Your task to perform on an android device: turn notification dots on Image 0: 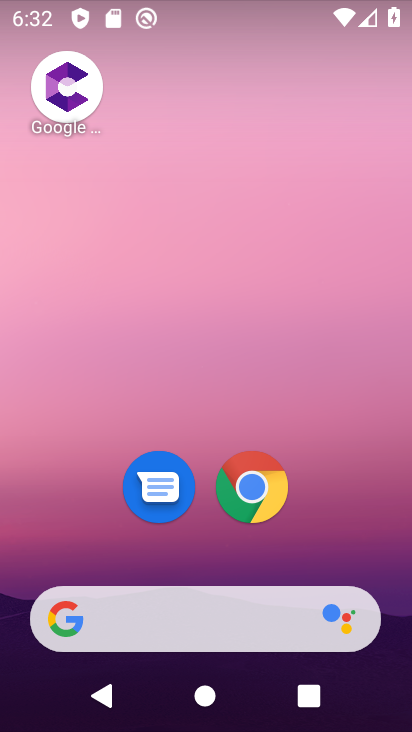
Step 0: drag from (78, 461) to (130, 68)
Your task to perform on an android device: turn notification dots on Image 1: 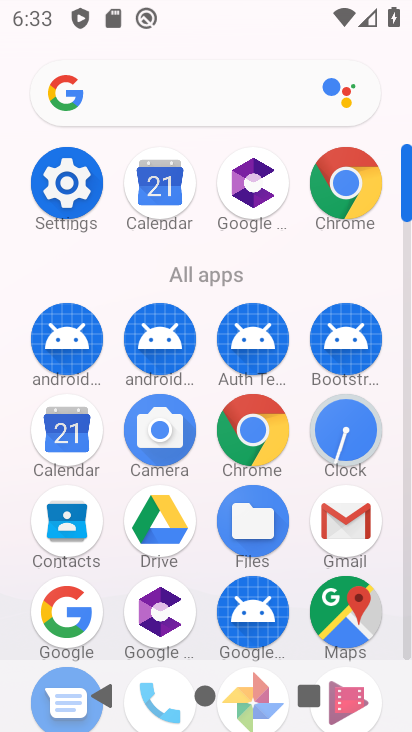
Step 1: click (57, 194)
Your task to perform on an android device: turn notification dots on Image 2: 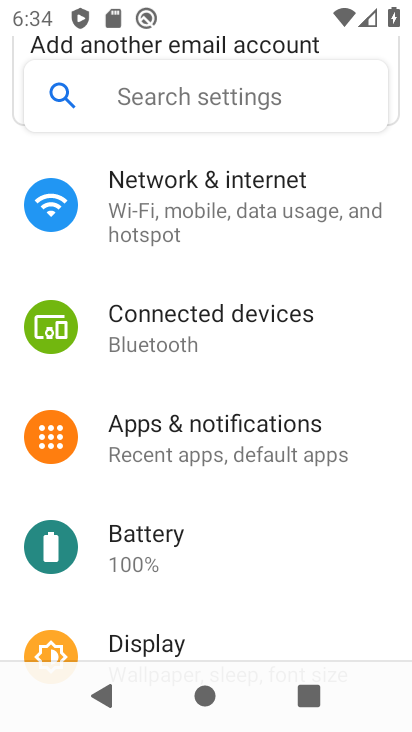
Step 2: click (157, 438)
Your task to perform on an android device: turn notification dots on Image 3: 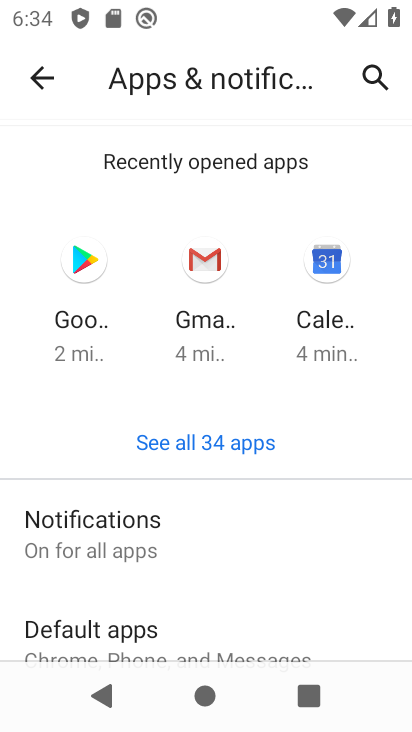
Step 3: drag from (198, 617) to (234, 216)
Your task to perform on an android device: turn notification dots on Image 4: 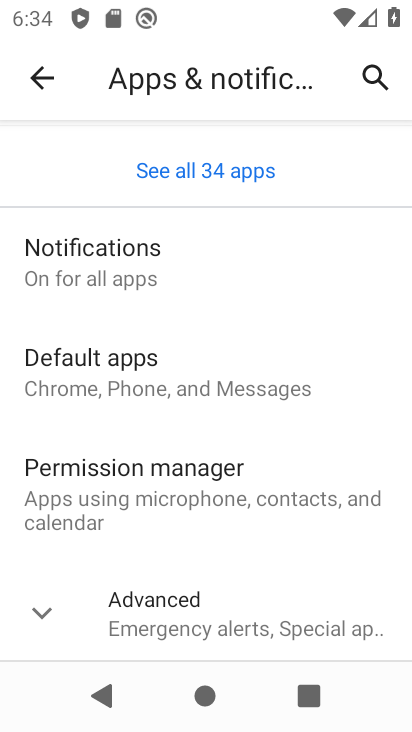
Step 4: click (167, 610)
Your task to perform on an android device: turn notification dots on Image 5: 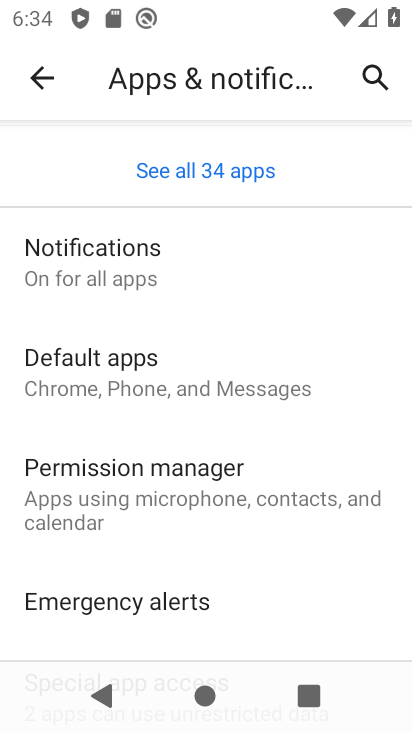
Step 5: click (152, 276)
Your task to perform on an android device: turn notification dots on Image 6: 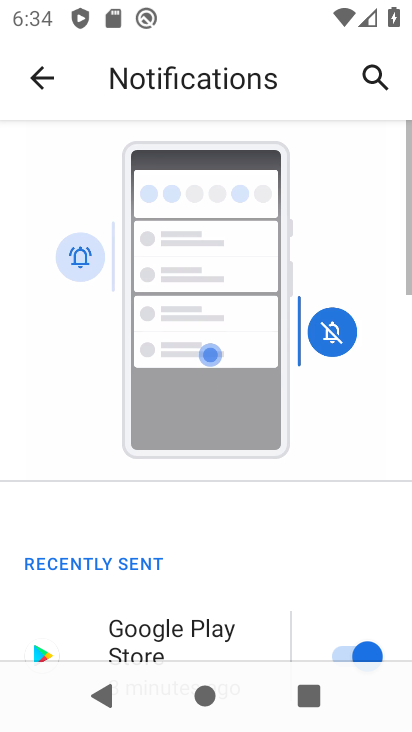
Step 6: drag from (272, 608) to (208, 5)
Your task to perform on an android device: turn notification dots on Image 7: 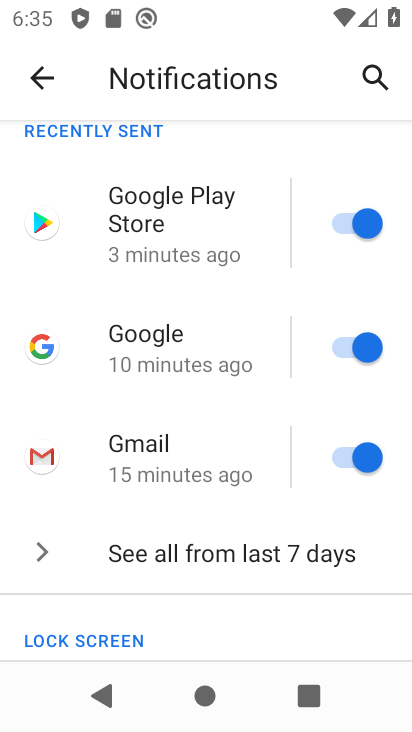
Step 7: drag from (206, 594) to (244, 216)
Your task to perform on an android device: turn notification dots on Image 8: 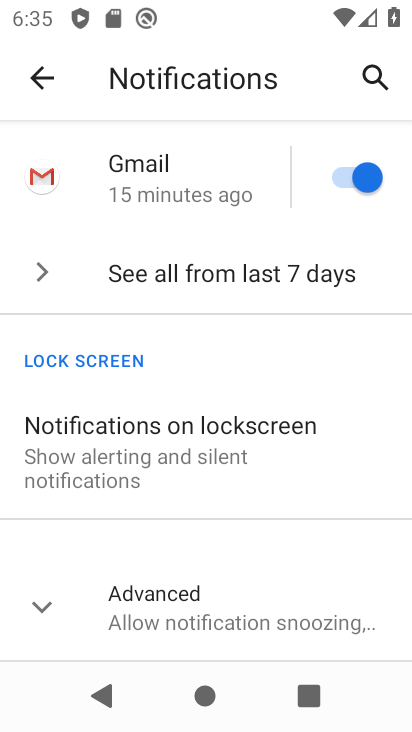
Step 8: click (248, 632)
Your task to perform on an android device: turn notification dots on Image 9: 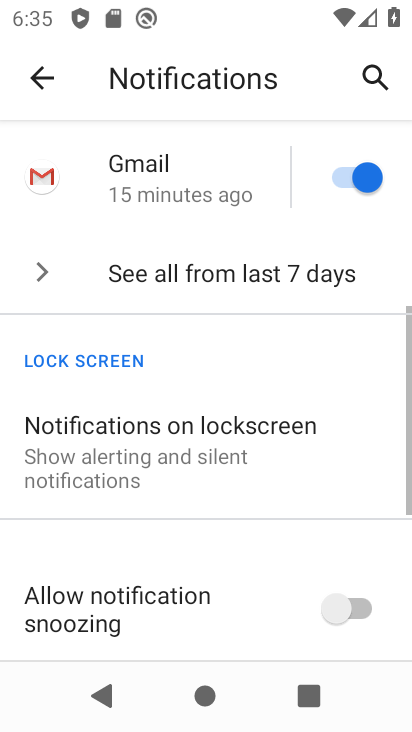
Step 9: drag from (285, 612) to (156, 253)
Your task to perform on an android device: turn notification dots on Image 10: 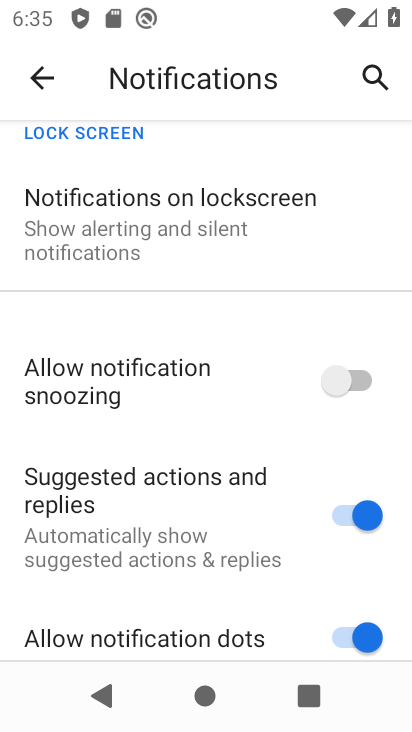
Step 10: drag from (197, 612) to (113, 210)
Your task to perform on an android device: turn notification dots on Image 11: 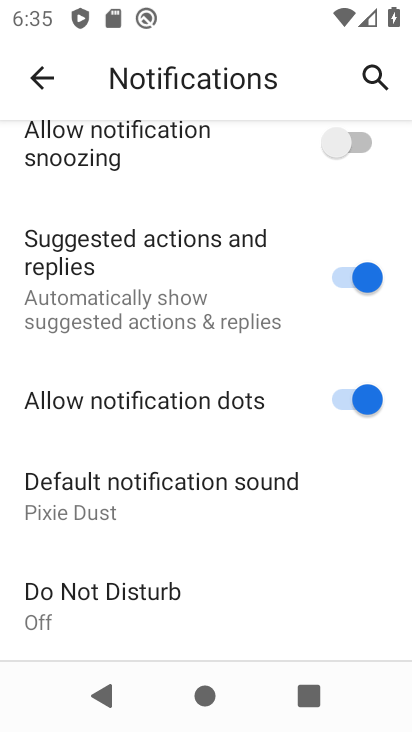
Step 11: click (343, 409)
Your task to perform on an android device: turn notification dots on Image 12: 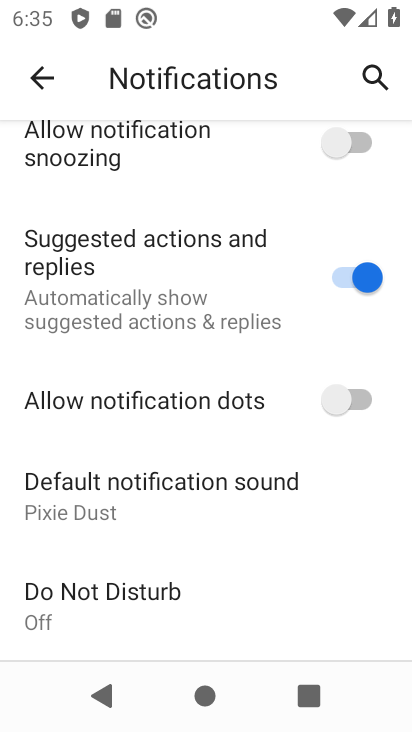
Step 12: click (368, 410)
Your task to perform on an android device: turn notification dots on Image 13: 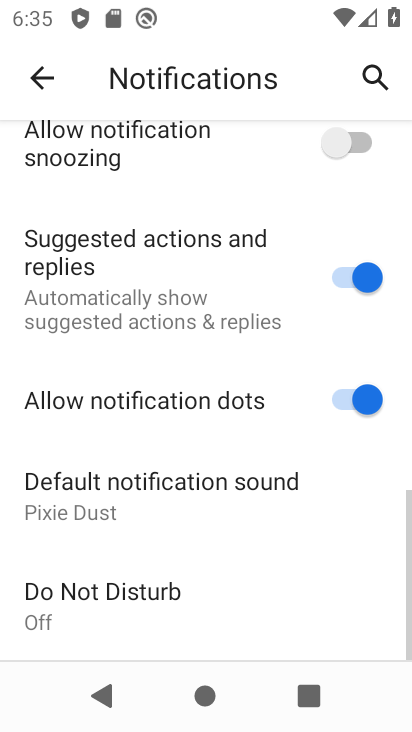
Step 13: task complete